Your task to perform on an android device: What's the weather going to be this weekend? Image 0: 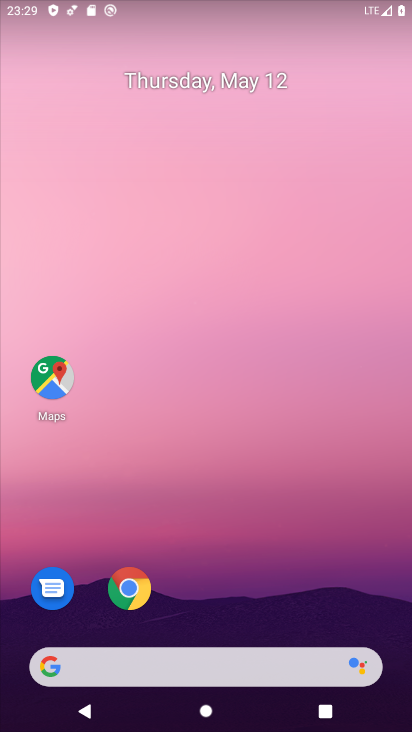
Step 0: drag from (222, 560) to (193, 101)
Your task to perform on an android device: What's the weather going to be this weekend? Image 1: 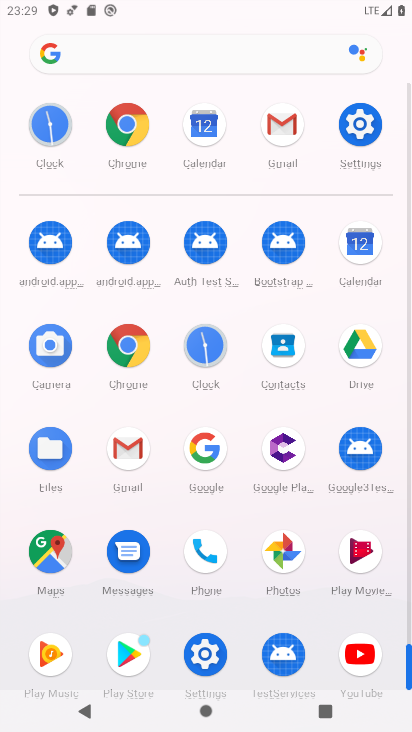
Step 1: click (129, 435)
Your task to perform on an android device: What's the weather going to be this weekend? Image 2: 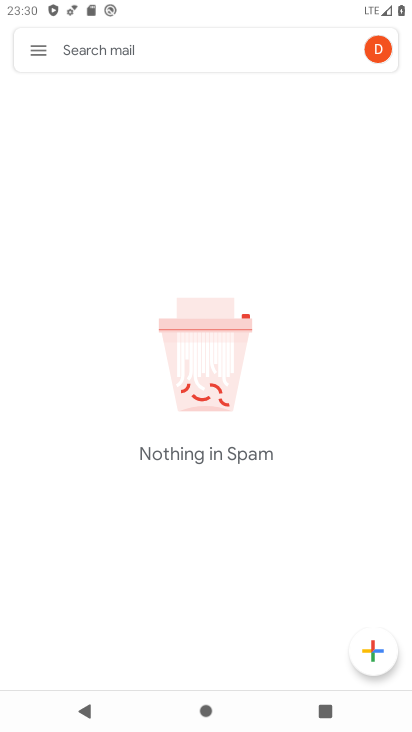
Step 2: drag from (254, 590) to (182, 222)
Your task to perform on an android device: What's the weather going to be this weekend? Image 3: 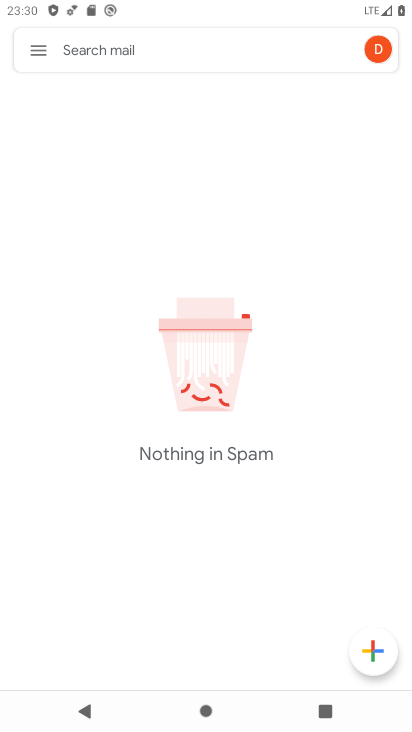
Step 3: click (22, 49)
Your task to perform on an android device: What's the weather going to be this weekend? Image 4: 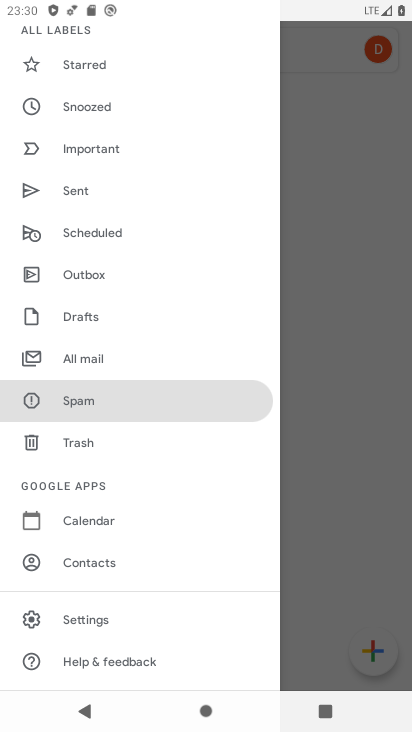
Step 4: press home button
Your task to perform on an android device: What's the weather going to be this weekend? Image 5: 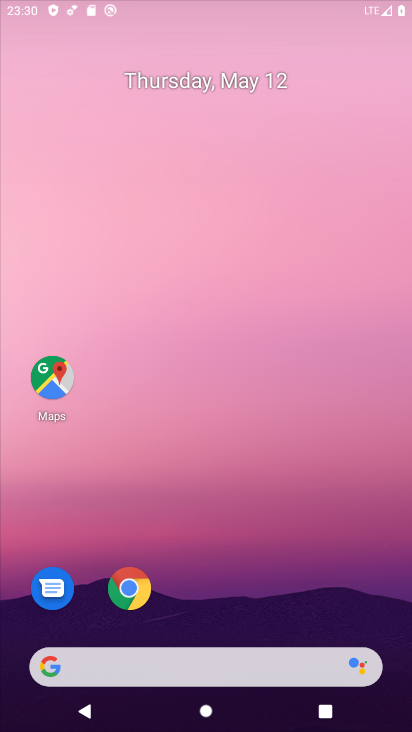
Step 5: drag from (212, 586) to (239, 109)
Your task to perform on an android device: What's the weather going to be this weekend? Image 6: 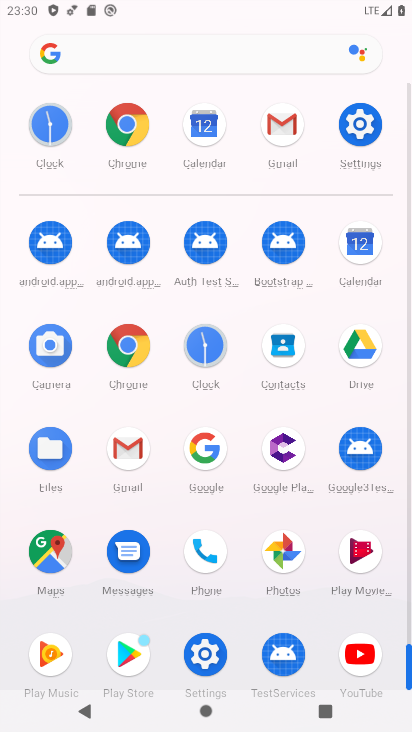
Step 6: click (193, 58)
Your task to perform on an android device: What's the weather going to be this weekend? Image 7: 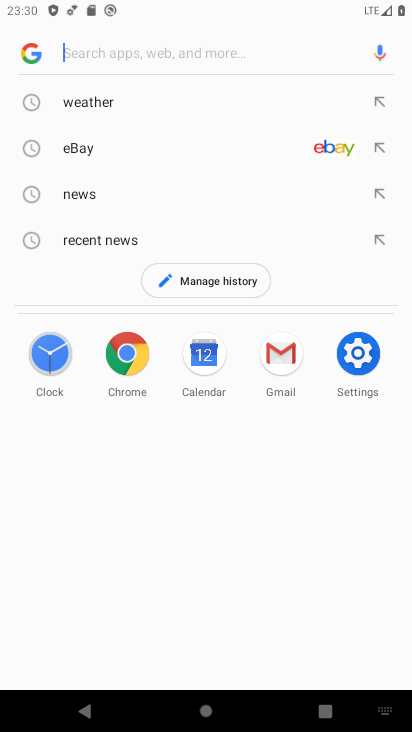
Step 7: type "weather going to be this weekend"
Your task to perform on an android device: What's the weather going to be this weekend? Image 8: 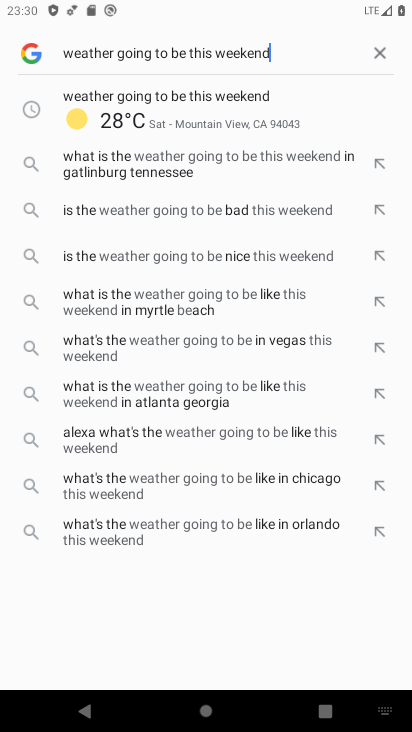
Step 8: click (161, 104)
Your task to perform on an android device: What's the weather going to be this weekend? Image 9: 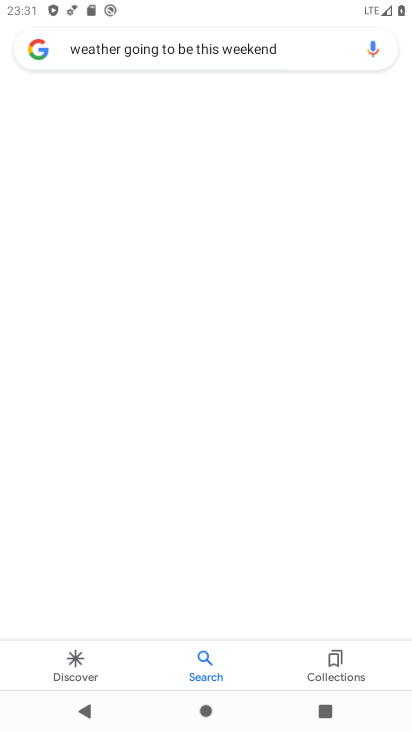
Step 9: task complete